Your task to perform on an android device: turn notification dots on Image 0: 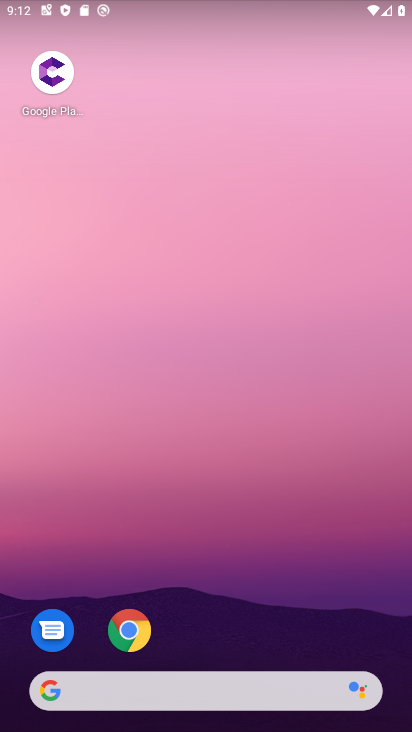
Step 0: drag from (261, 550) to (185, 16)
Your task to perform on an android device: turn notification dots on Image 1: 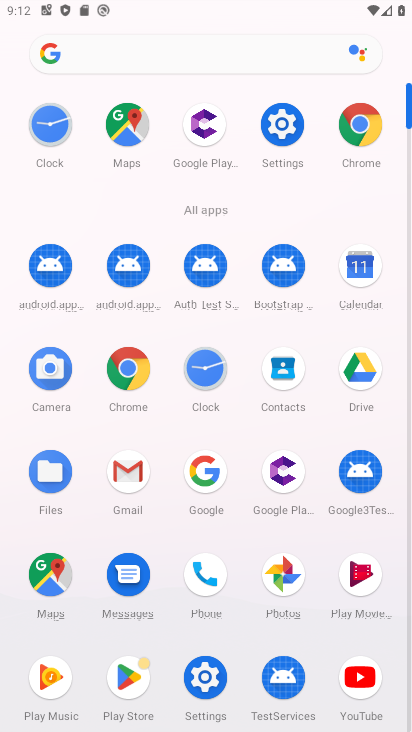
Step 1: click (281, 123)
Your task to perform on an android device: turn notification dots on Image 2: 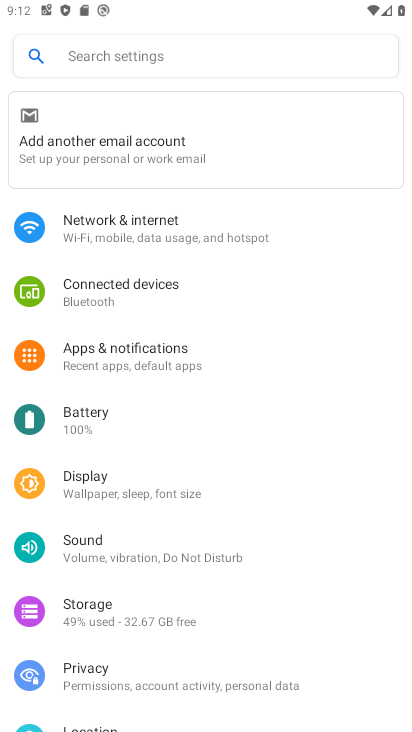
Step 2: click (152, 351)
Your task to perform on an android device: turn notification dots on Image 3: 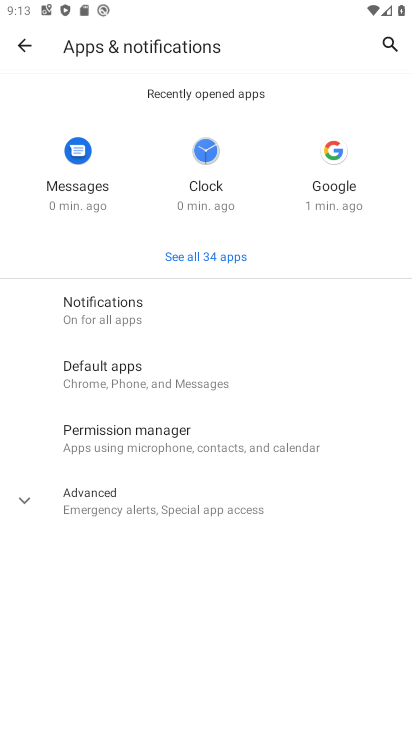
Step 3: click (104, 308)
Your task to perform on an android device: turn notification dots on Image 4: 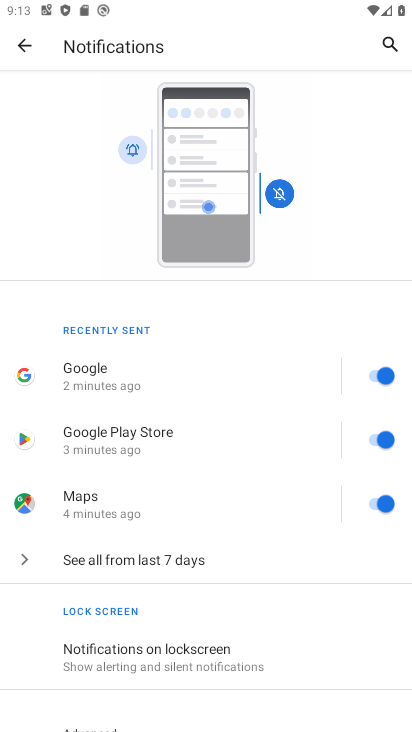
Step 4: drag from (286, 568) to (221, 191)
Your task to perform on an android device: turn notification dots on Image 5: 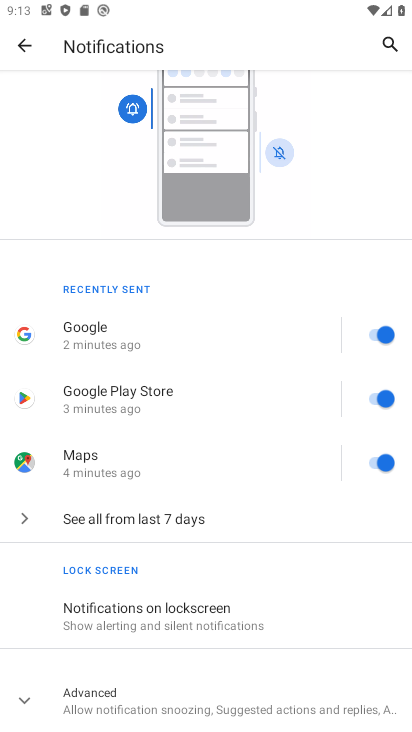
Step 5: click (77, 705)
Your task to perform on an android device: turn notification dots on Image 6: 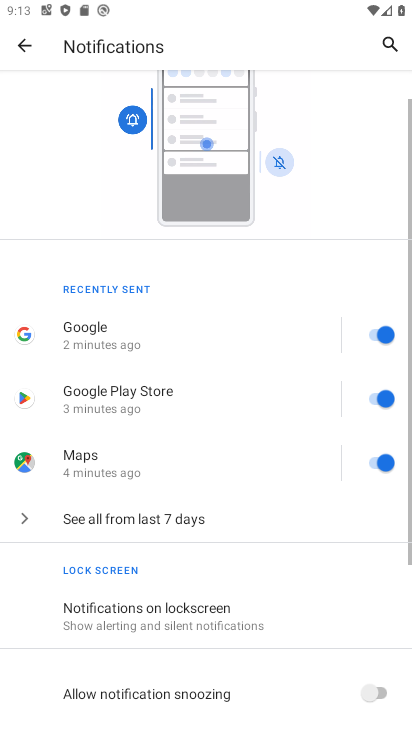
Step 6: task complete